Your task to perform on an android device: Open calendar and show me the second week of next month Image 0: 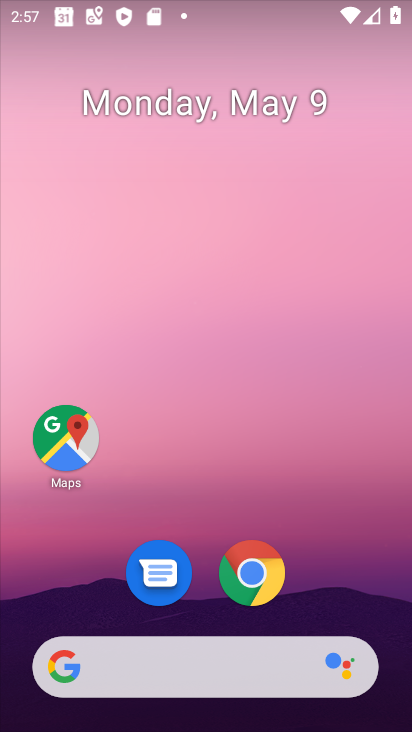
Step 0: click (220, 302)
Your task to perform on an android device: Open calendar and show me the second week of next month Image 1: 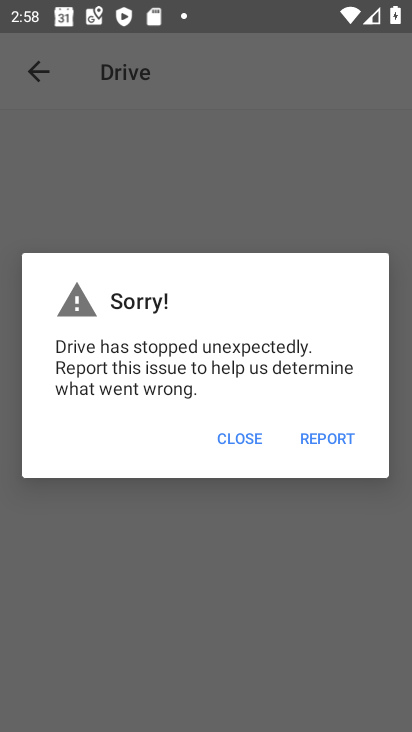
Step 1: click (245, 434)
Your task to perform on an android device: Open calendar and show me the second week of next month Image 2: 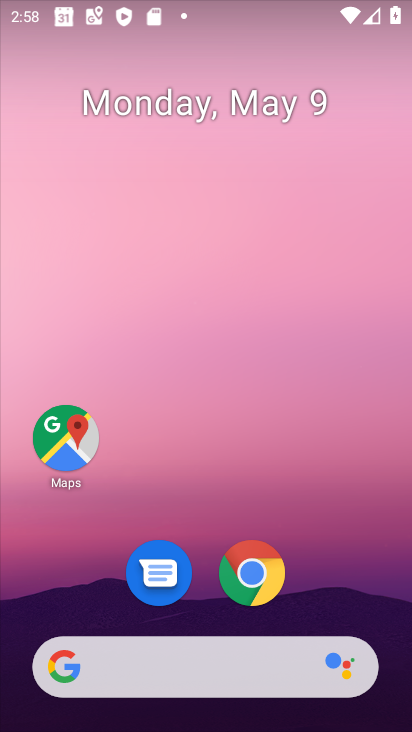
Step 2: drag from (221, 641) to (195, 228)
Your task to perform on an android device: Open calendar and show me the second week of next month Image 3: 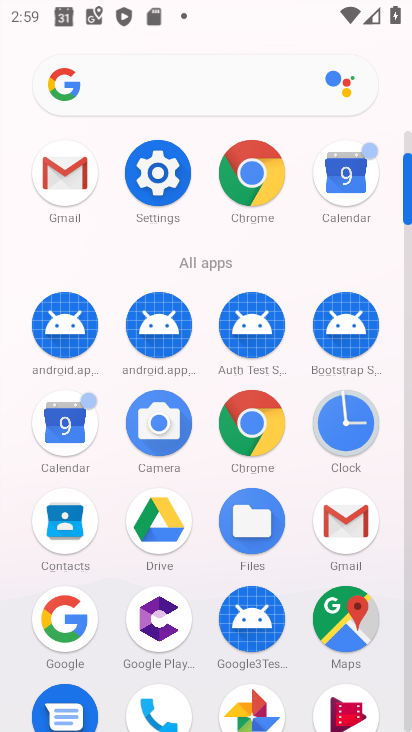
Step 3: click (343, 178)
Your task to perform on an android device: Open calendar and show me the second week of next month Image 4: 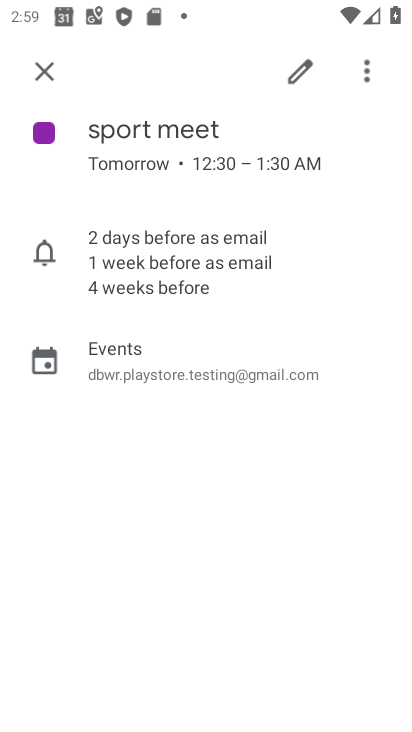
Step 4: click (53, 74)
Your task to perform on an android device: Open calendar and show me the second week of next month Image 5: 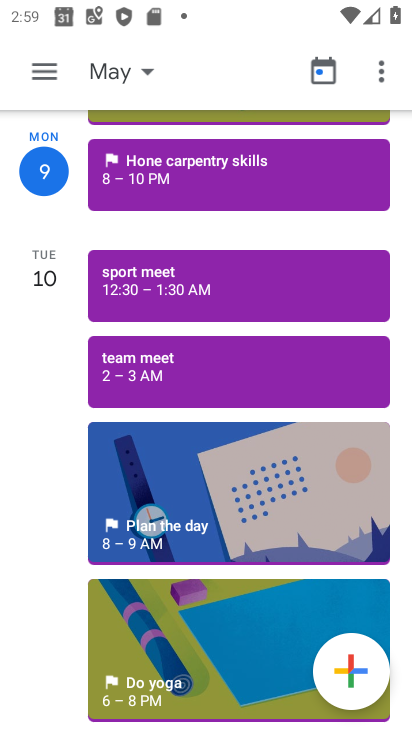
Step 5: click (133, 77)
Your task to perform on an android device: Open calendar and show me the second week of next month Image 6: 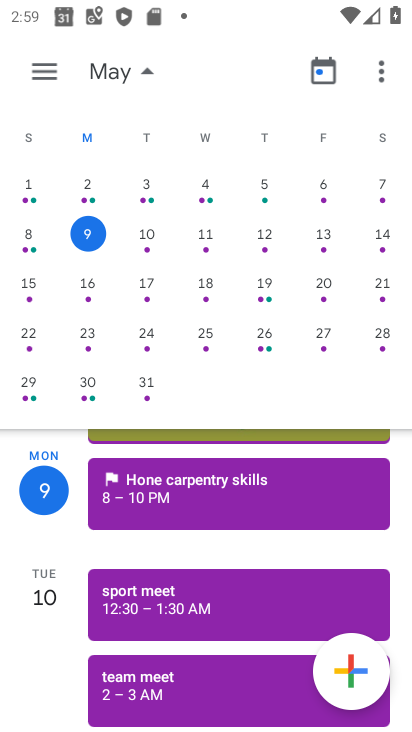
Step 6: drag from (395, 292) to (27, 329)
Your task to perform on an android device: Open calendar and show me the second week of next month Image 7: 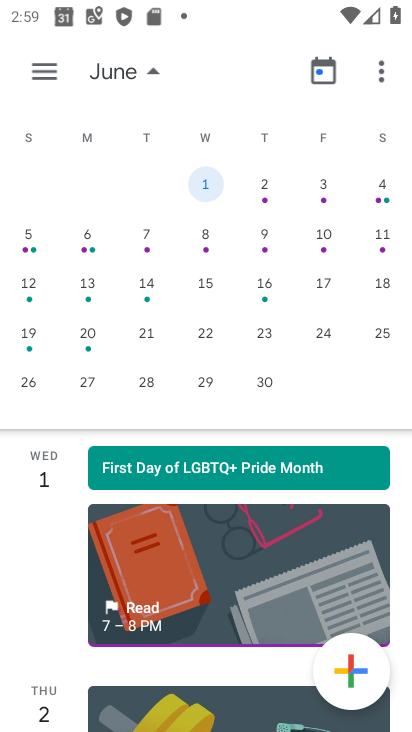
Step 7: click (31, 245)
Your task to perform on an android device: Open calendar and show me the second week of next month Image 8: 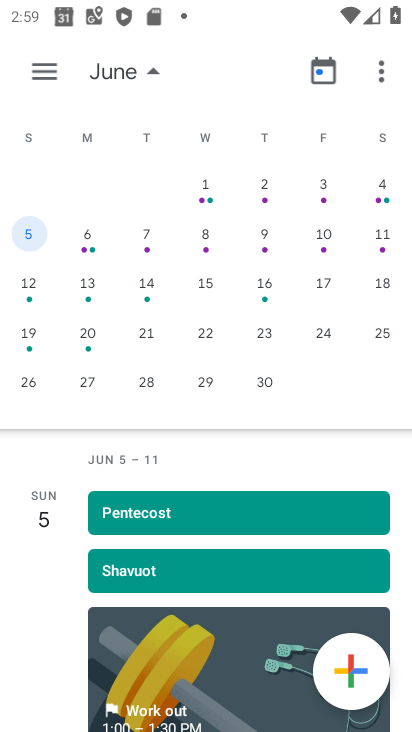
Step 8: task complete